Your task to perform on an android device: Open Wikipedia Image 0: 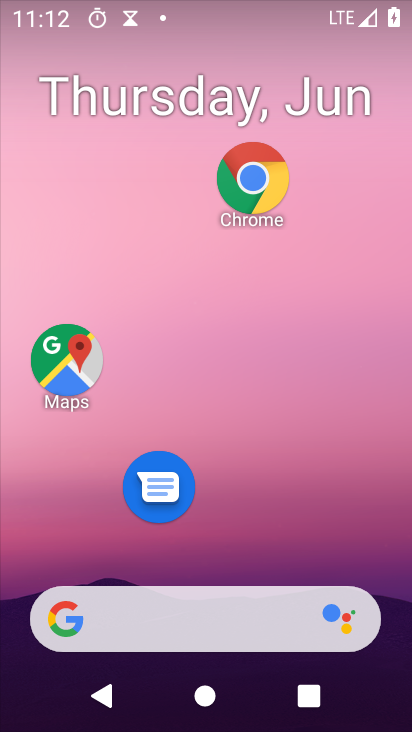
Step 0: click (261, 172)
Your task to perform on an android device: Open Wikipedia Image 1: 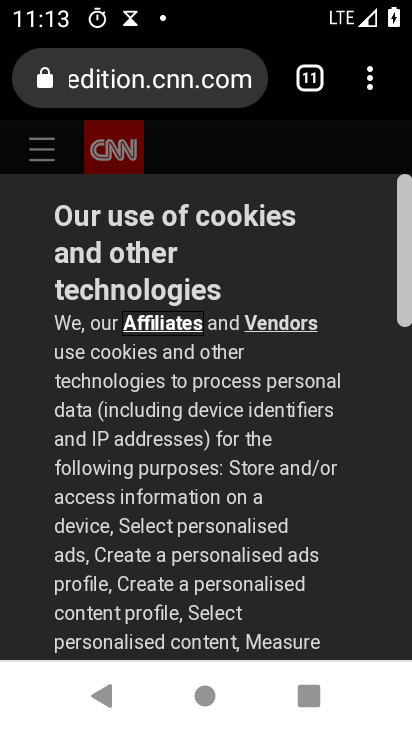
Step 1: click (371, 90)
Your task to perform on an android device: Open Wikipedia Image 2: 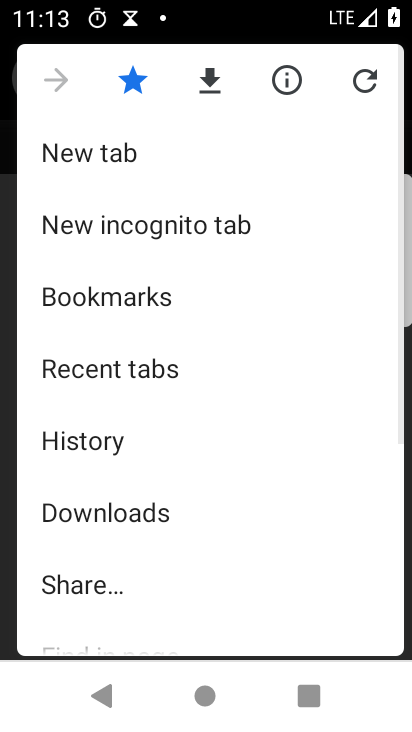
Step 2: click (58, 159)
Your task to perform on an android device: Open Wikipedia Image 3: 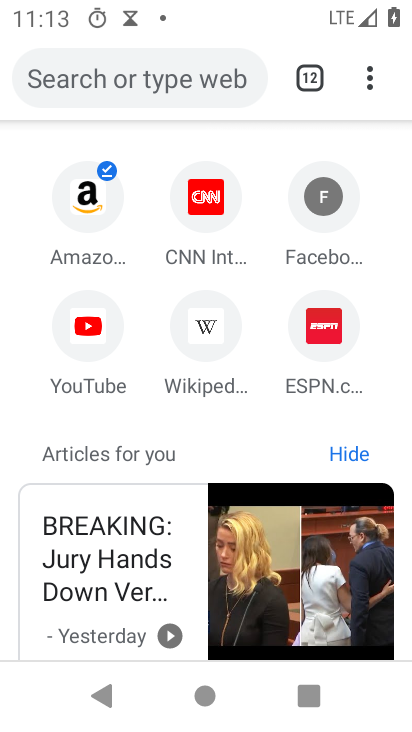
Step 3: click (205, 330)
Your task to perform on an android device: Open Wikipedia Image 4: 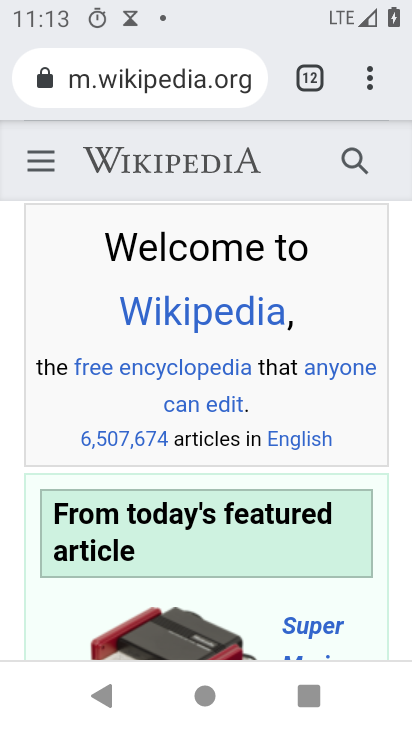
Step 4: task complete